Your task to perform on an android device: Go to eBay Image 0: 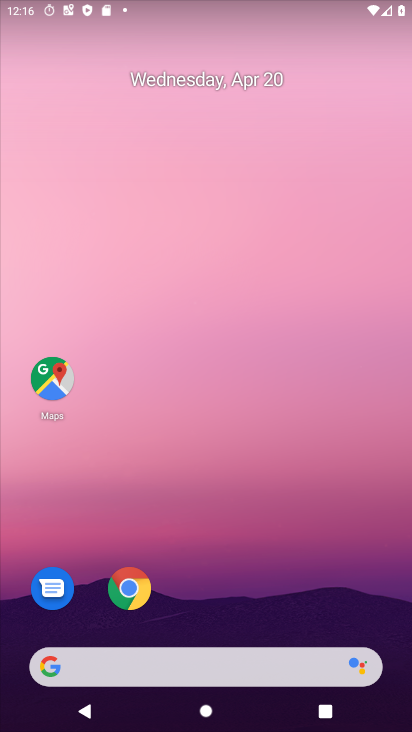
Step 0: drag from (219, 643) to (171, 5)
Your task to perform on an android device: Go to eBay Image 1: 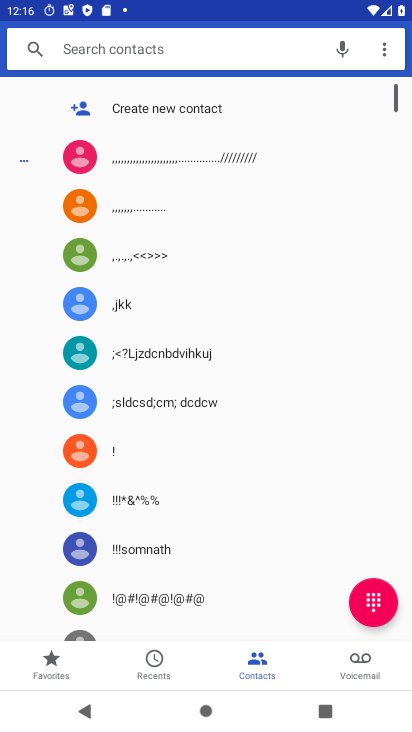
Step 1: press home button
Your task to perform on an android device: Go to eBay Image 2: 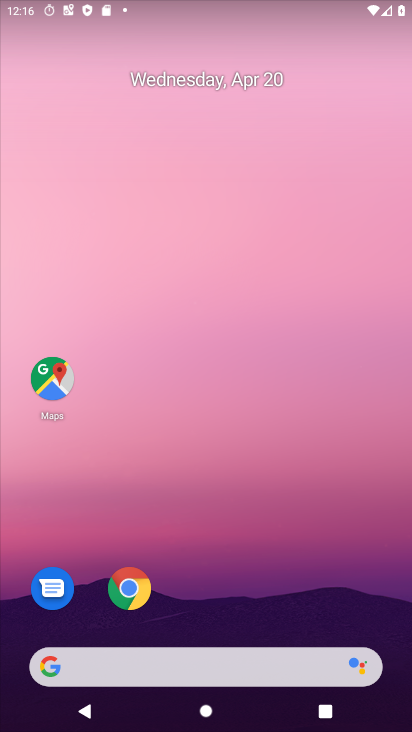
Step 2: click (126, 604)
Your task to perform on an android device: Go to eBay Image 3: 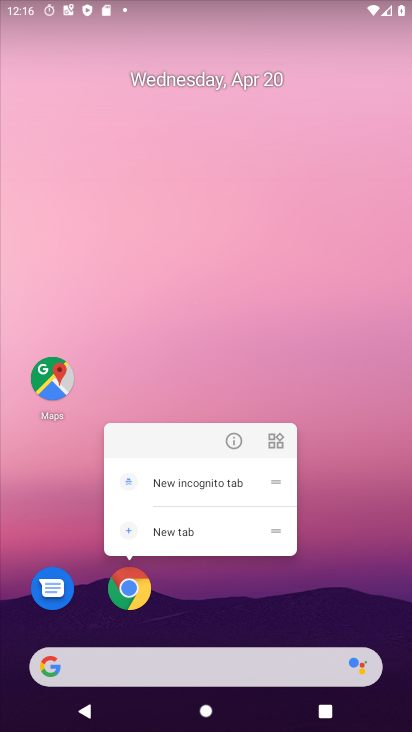
Step 3: click (127, 602)
Your task to perform on an android device: Go to eBay Image 4: 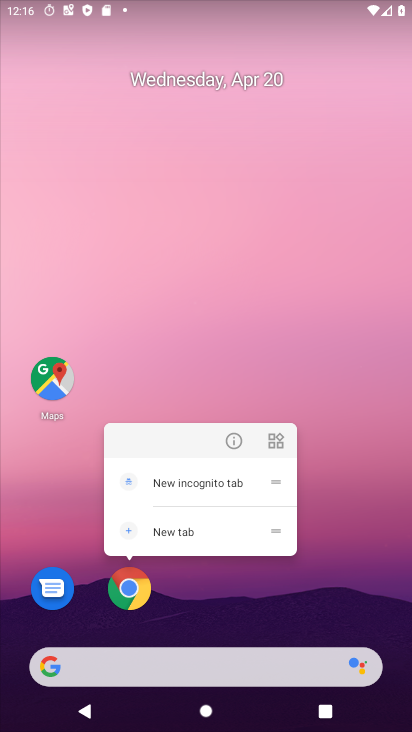
Step 4: click (127, 595)
Your task to perform on an android device: Go to eBay Image 5: 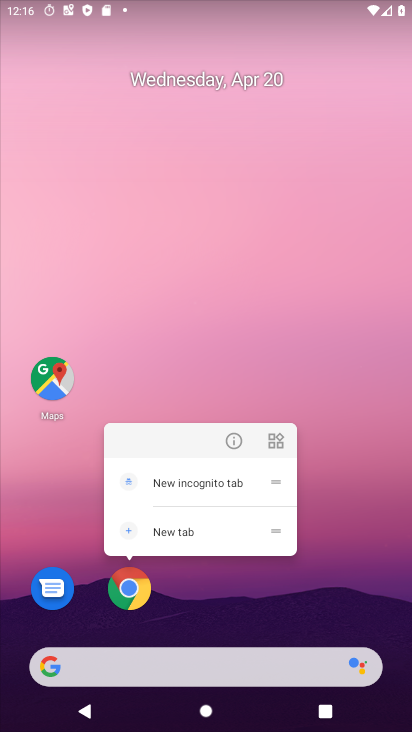
Step 5: click (128, 590)
Your task to perform on an android device: Go to eBay Image 6: 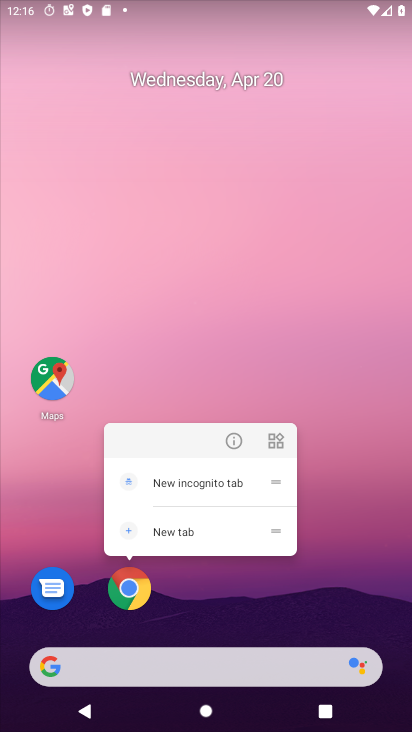
Step 6: click (128, 590)
Your task to perform on an android device: Go to eBay Image 7: 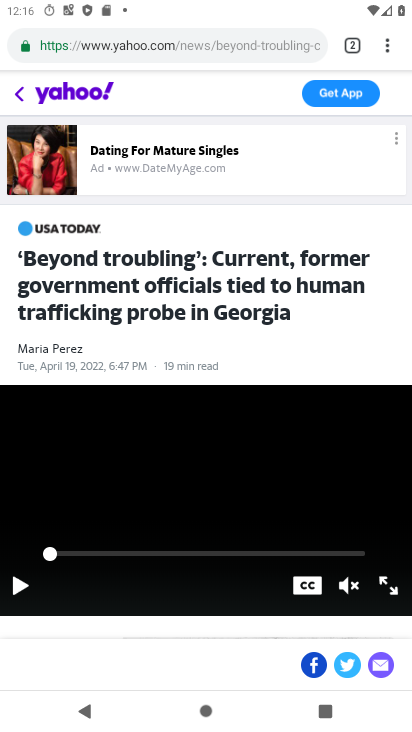
Step 7: click (340, 50)
Your task to perform on an android device: Go to eBay Image 8: 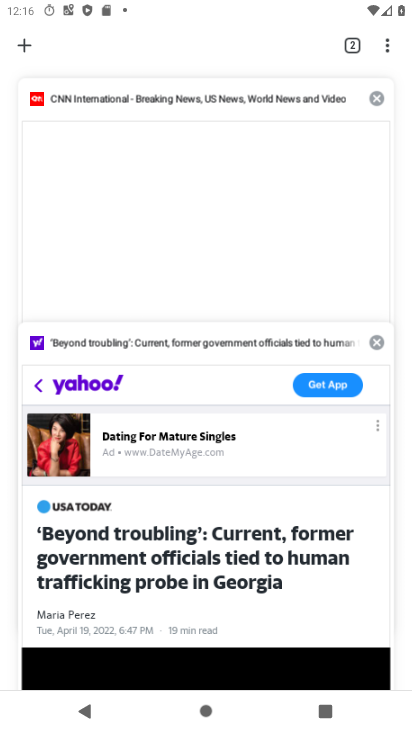
Step 8: click (21, 44)
Your task to perform on an android device: Go to eBay Image 9: 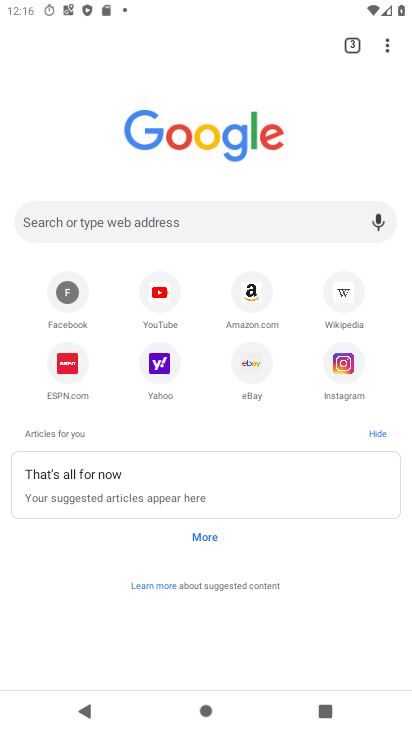
Step 9: click (243, 362)
Your task to perform on an android device: Go to eBay Image 10: 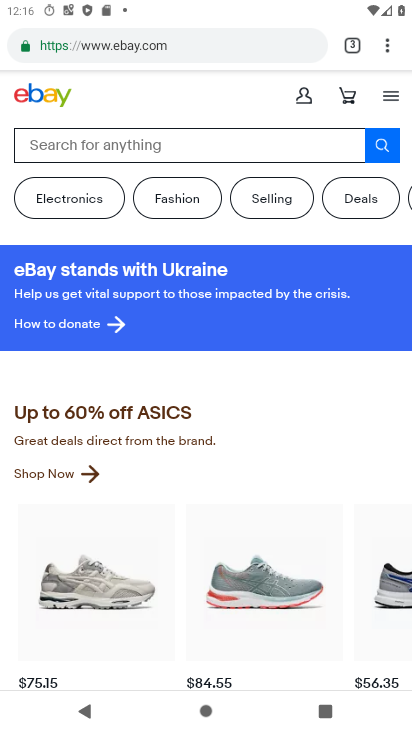
Step 10: task complete